Your task to perform on an android device: toggle javascript in the chrome app Image 0: 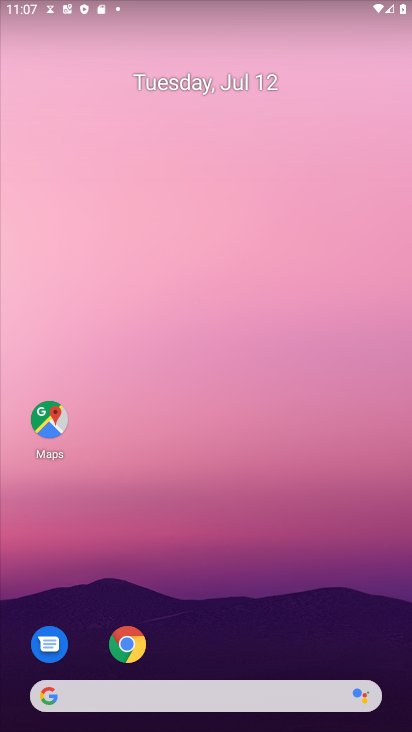
Step 0: click (126, 637)
Your task to perform on an android device: toggle javascript in the chrome app Image 1: 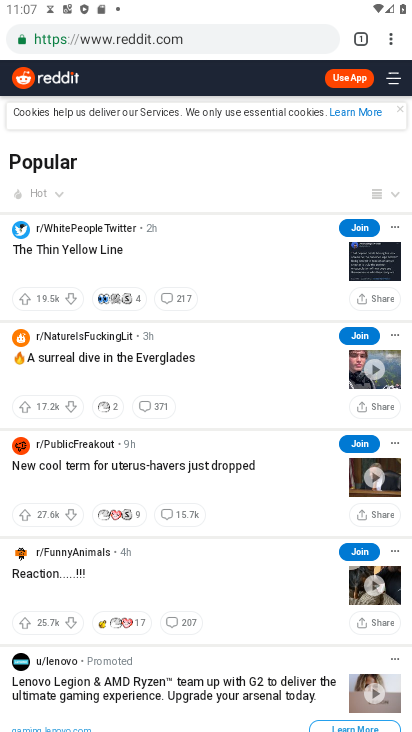
Step 1: click (392, 36)
Your task to perform on an android device: toggle javascript in the chrome app Image 2: 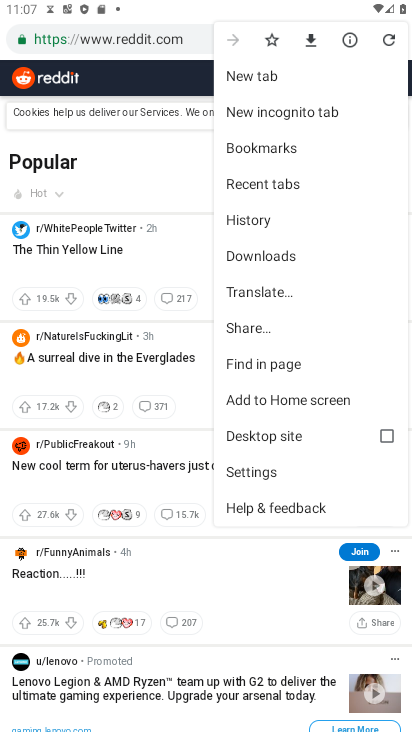
Step 2: click (285, 465)
Your task to perform on an android device: toggle javascript in the chrome app Image 3: 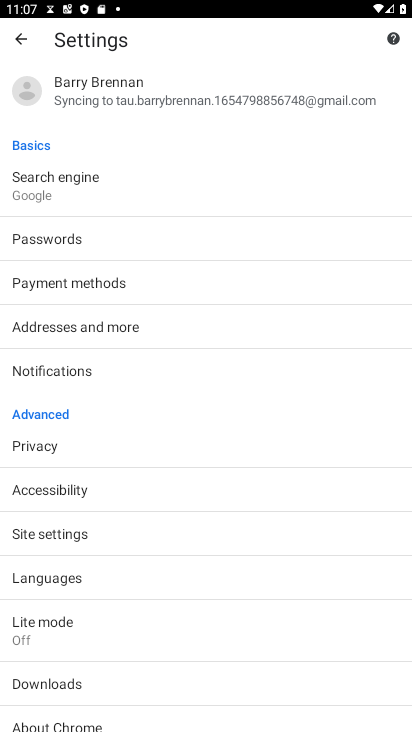
Step 3: click (101, 531)
Your task to perform on an android device: toggle javascript in the chrome app Image 4: 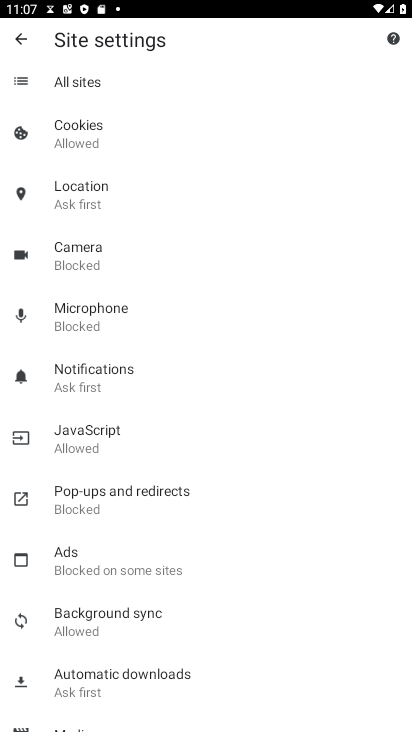
Step 4: click (114, 441)
Your task to perform on an android device: toggle javascript in the chrome app Image 5: 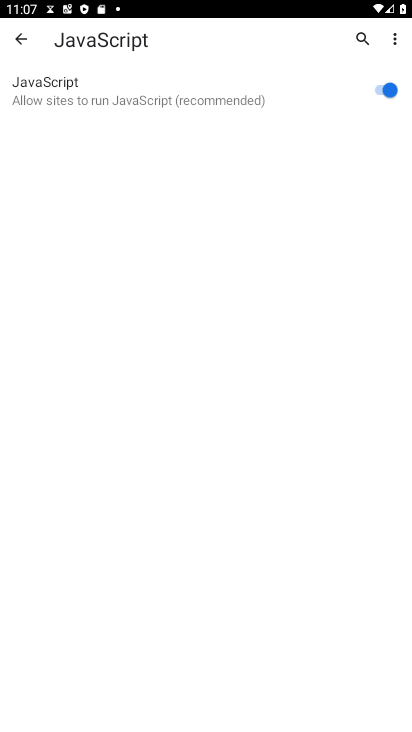
Step 5: click (383, 88)
Your task to perform on an android device: toggle javascript in the chrome app Image 6: 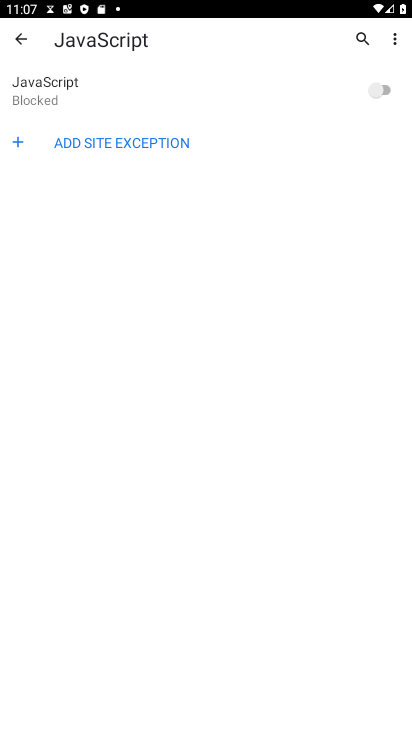
Step 6: task complete